Your task to perform on an android device: Open the calendar app, open the side menu, and click the "Day" option Image 0: 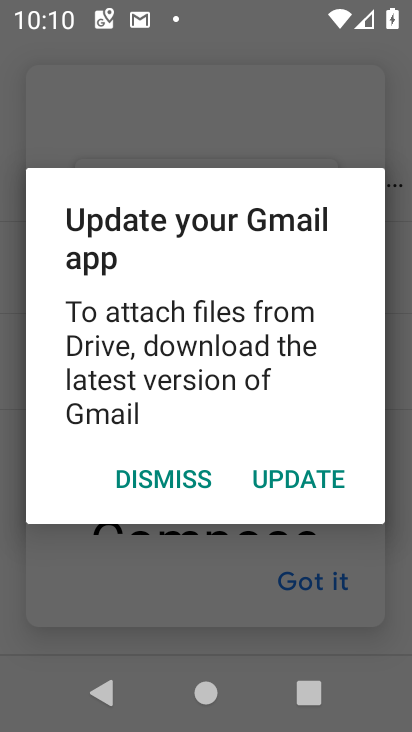
Step 0: press home button
Your task to perform on an android device: Open the calendar app, open the side menu, and click the "Day" option Image 1: 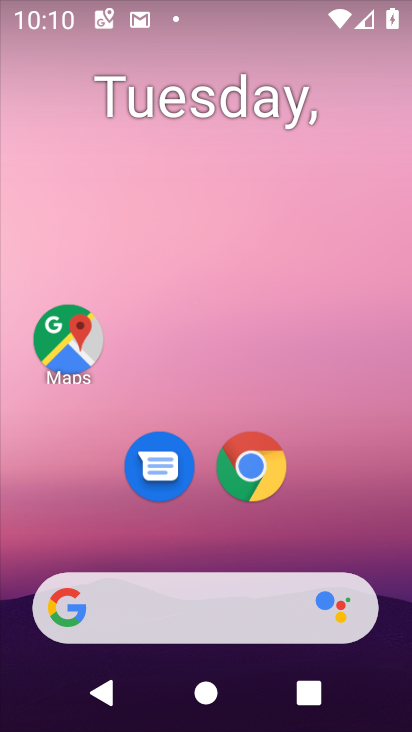
Step 1: drag from (314, 603) to (316, 184)
Your task to perform on an android device: Open the calendar app, open the side menu, and click the "Day" option Image 2: 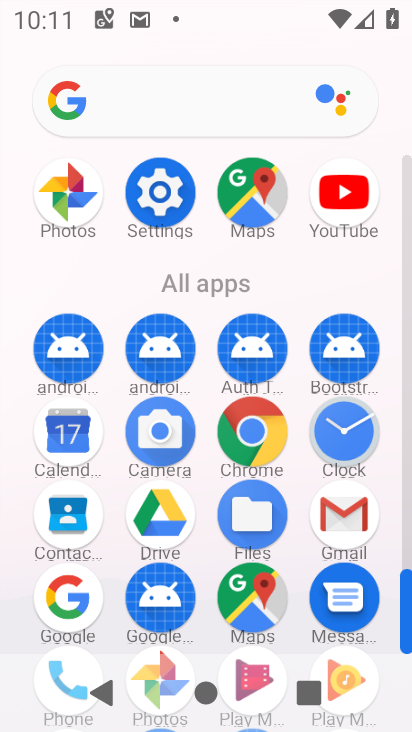
Step 2: click (65, 448)
Your task to perform on an android device: Open the calendar app, open the side menu, and click the "Day" option Image 3: 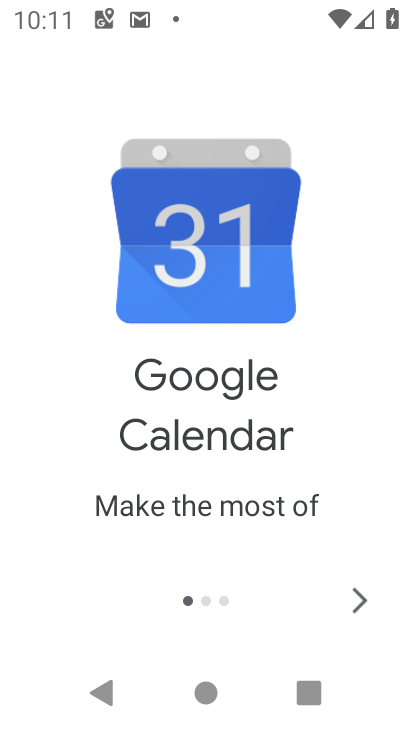
Step 3: click (317, 602)
Your task to perform on an android device: Open the calendar app, open the side menu, and click the "Day" option Image 4: 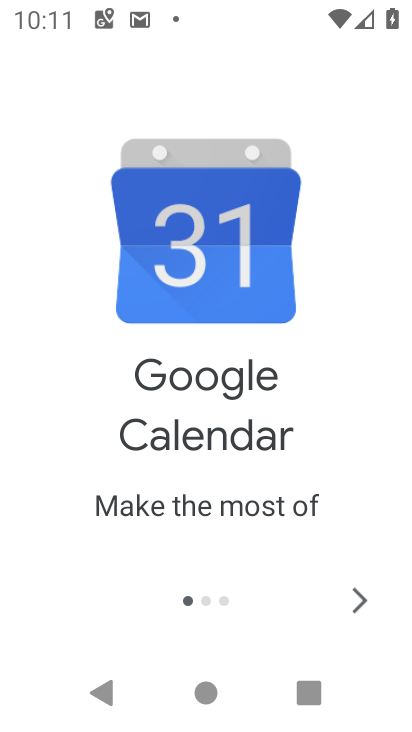
Step 4: click (349, 607)
Your task to perform on an android device: Open the calendar app, open the side menu, and click the "Day" option Image 5: 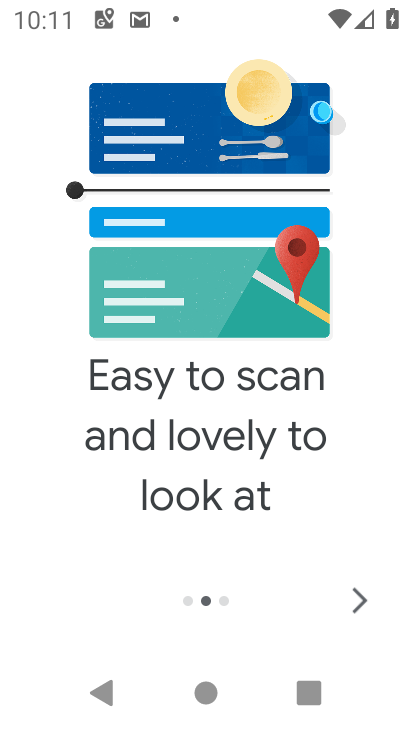
Step 5: click (348, 605)
Your task to perform on an android device: Open the calendar app, open the side menu, and click the "Day" option Image 6: 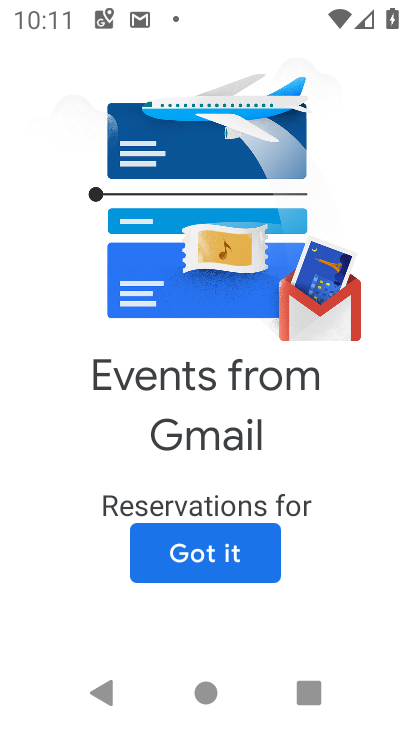
Step 6: click (223, 550)
Your task to perform on an android device: Open the calendar app, open the side menu, and click the "Day" option Image 7: 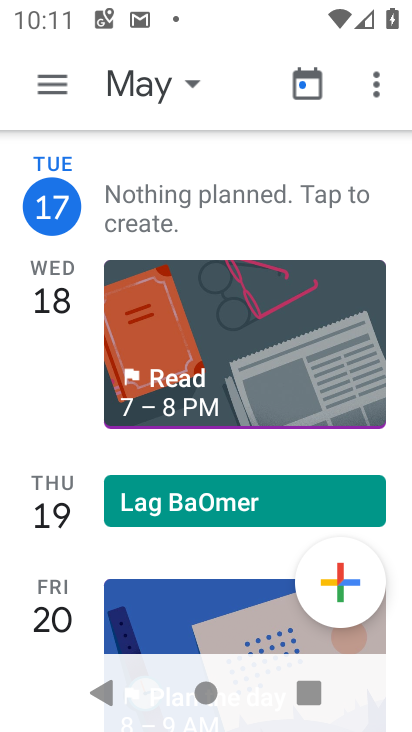
Step 7: click (61, 67)
Your task to perform on an android device: Open the calendar app, open the side menu, and click the "Day" option Image 8: 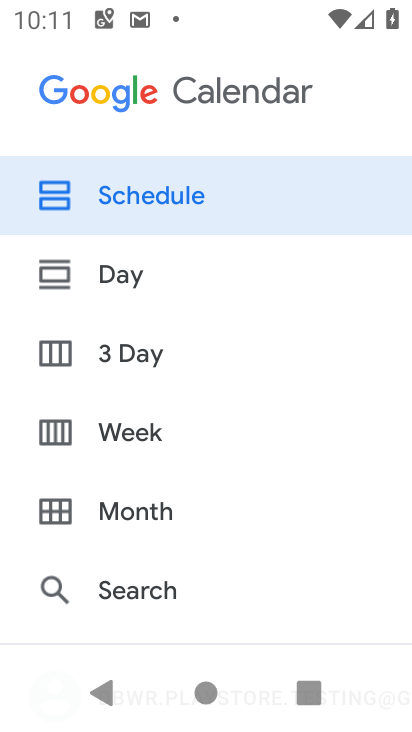
Step 8: click (123, 283)
Your task to perform on an android device: Open the calendar app, open the side menu, and click the "Day" option Image 9: 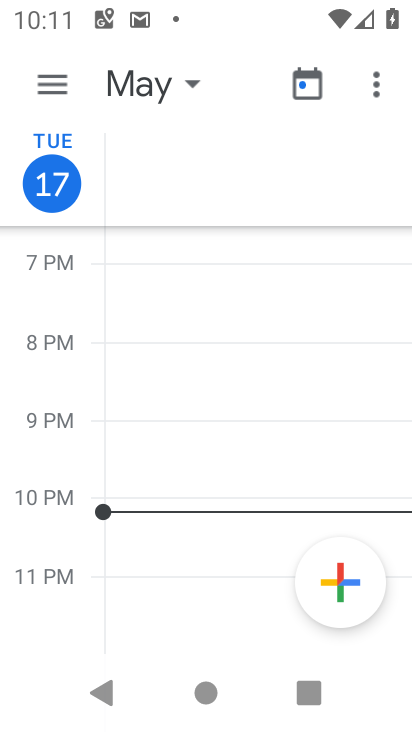
Step 9: task complete